Your task to perform on an android device: turn off location Image 0: 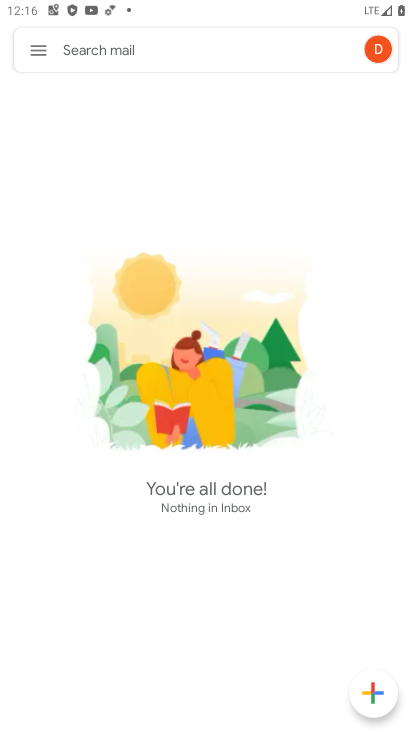
Step 0: press home button
Your task to perform on an android device: turn off location Image 1: 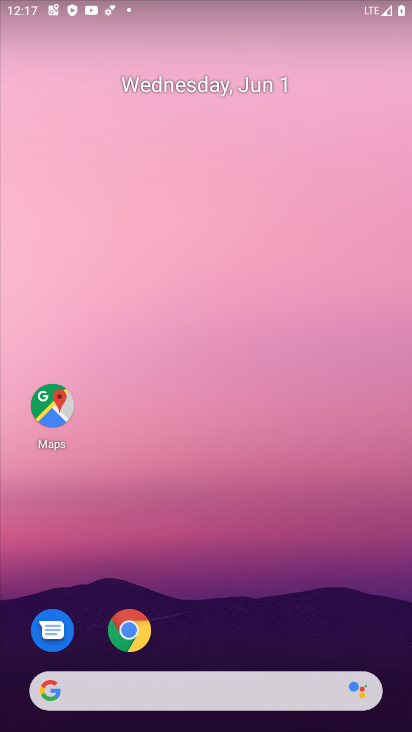
Step 1: drag from (295, 589) to (278, 138)
Your task to perform on an android device: turn off location Image 2: 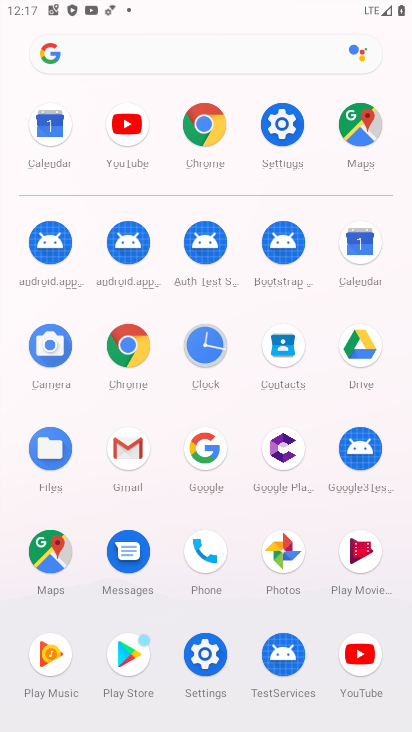
Step 2: click (283, 125)
Your task to perform on an android device: turn off location Image 3: 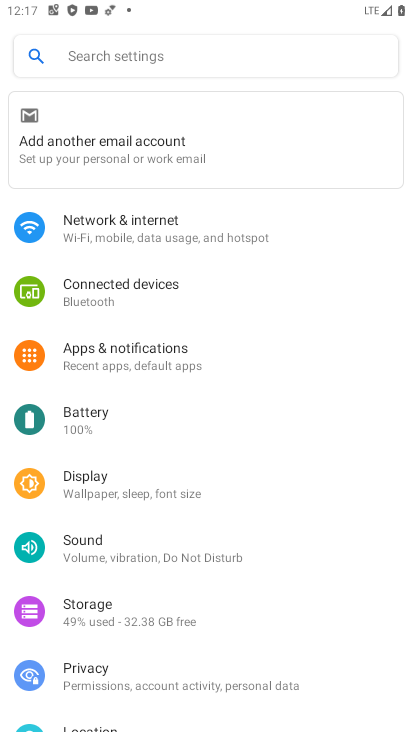
Step 3: drag from (364, 636) to (319, 206)
Your task to perform on an android device: turn off location Image 4: 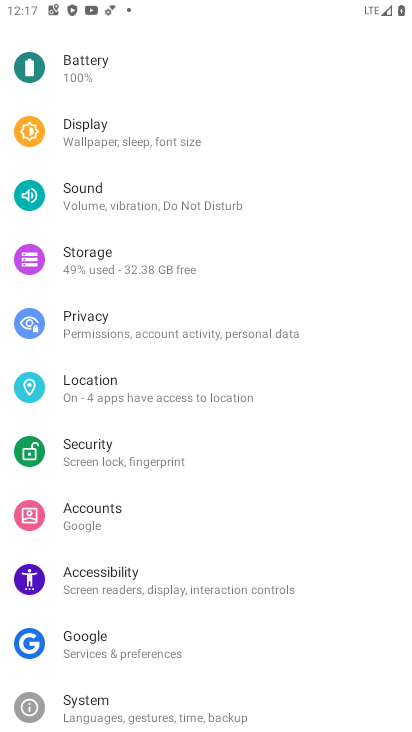
Step 4: click (166, 387)
Your task to perform on an android device: turn off location Image 5: 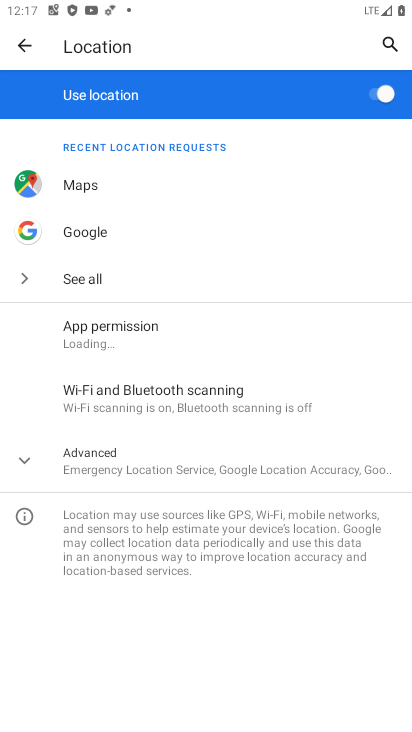
Step 5: click (386, 98)
Your task to perform on an android device: turn off location Image 6: 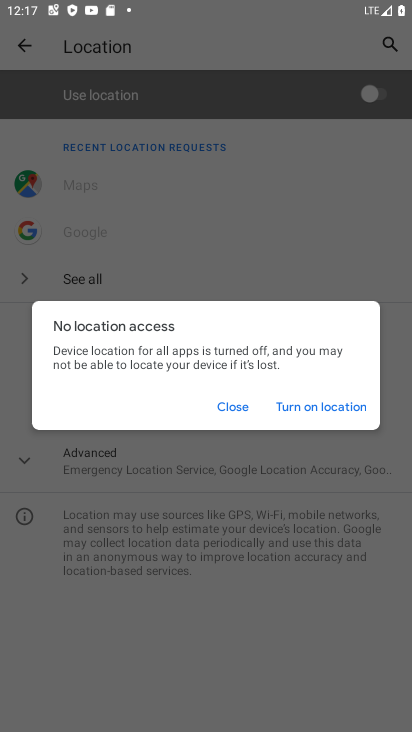
Step 6: click (232, 411)
Your task to perform on an android device: turn off location Image 7: 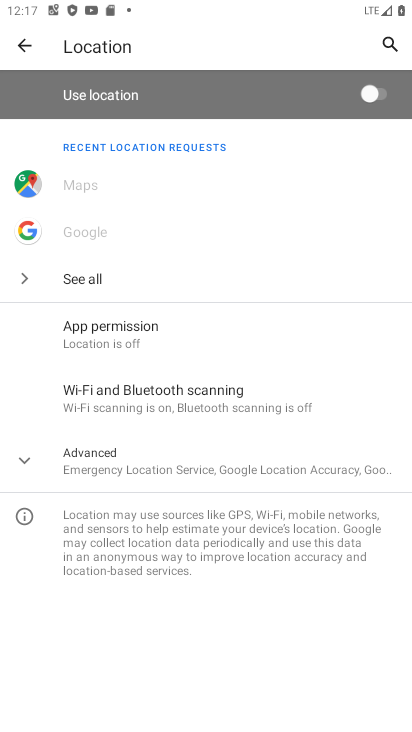
Step 7: task complete